Your task to perform on an android device: turn on showing notifications on the lock screen Image 0: 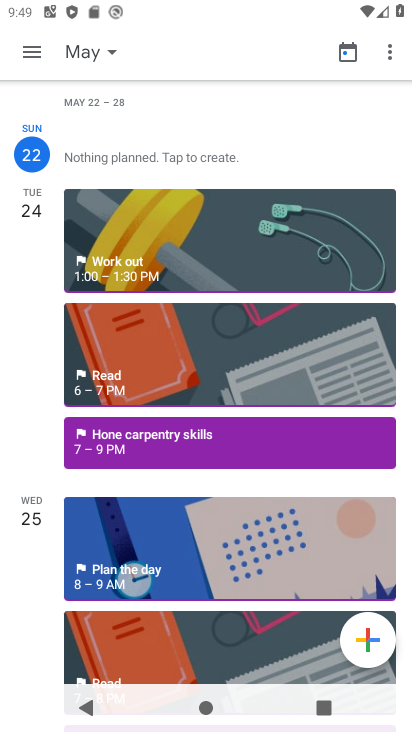
Step 0: press home button
Your task to perform on an android device: turn on showing notifications on the lock screen Image 1: 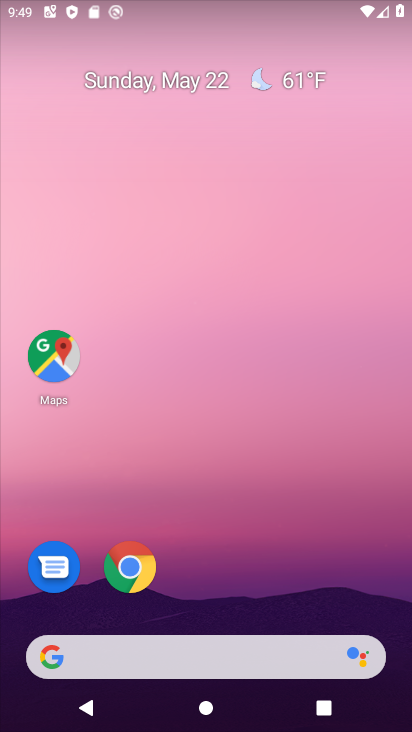
Step 1: drag from (249, 619) to (204, 27)
Your task to perform on an android device: turn on showing notifications on the lock screen Image 2: 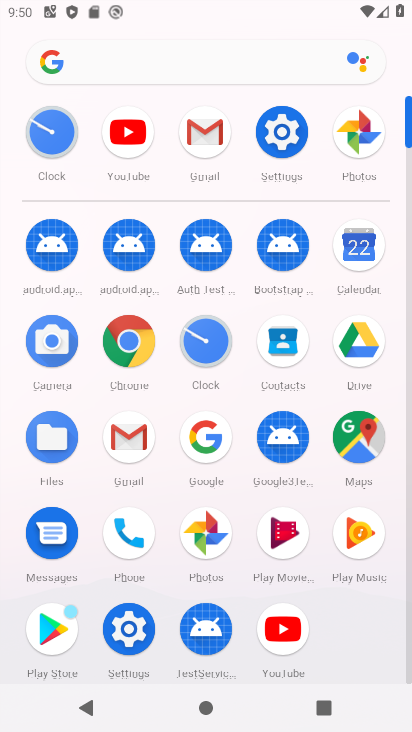
Step 2: click (137, 649)
Your task to perform on an android device: turn on showing notifications on the lock screen Image 3: 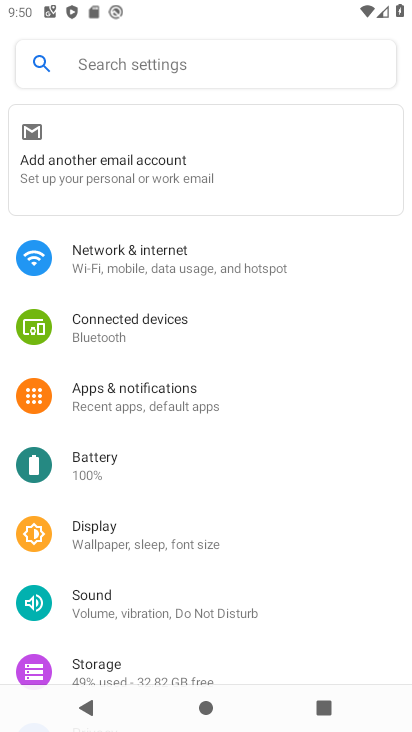
Step 3: click (123, 392)
Your task to perform on an android device: turn on showing notifications on the lock screen Image 4: 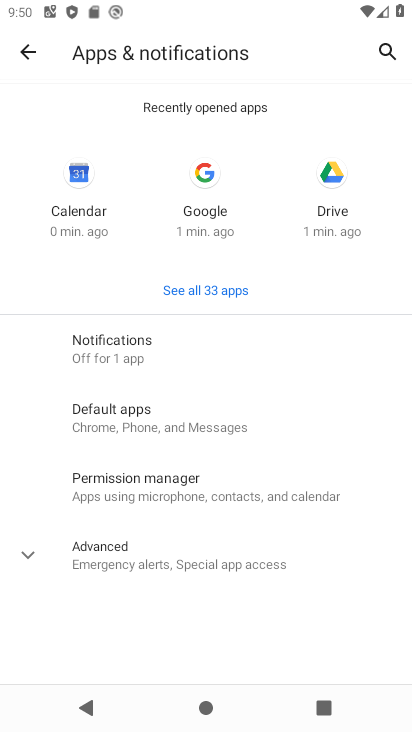
Step 4: click (122, 368)
Your task to perform on an android device: turn on showing notifications on the lock screen Image 5: 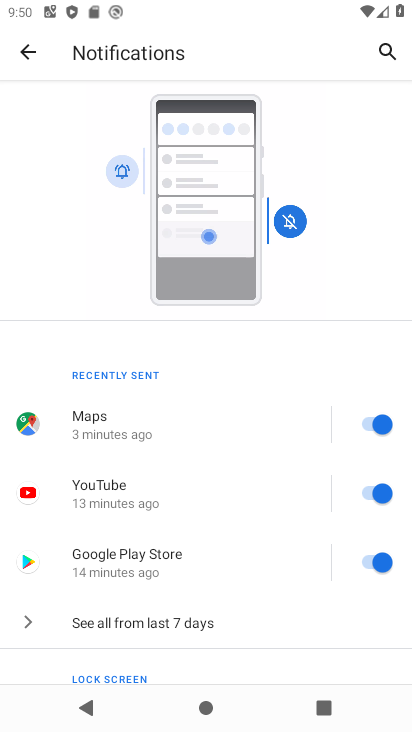
Step 5: drag from (221, 622) to (116, 102)
Your task to perform on an android device: turn on showing notifications on the lock screen Image 6: 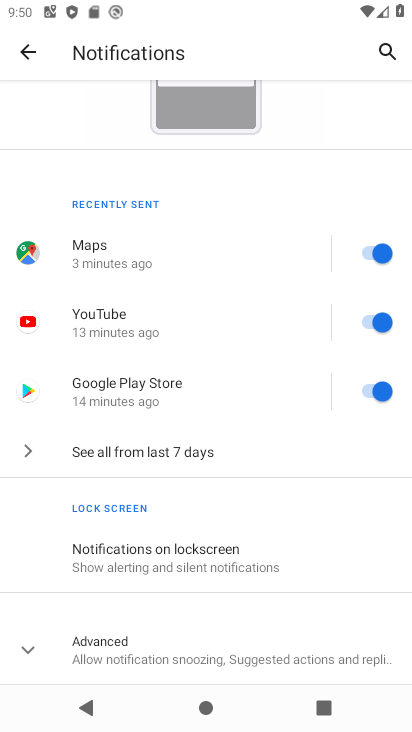
Step 6: click (184, 562)
Your task to perform on an android device: turn on showing notifications on the lock screen Image 7: 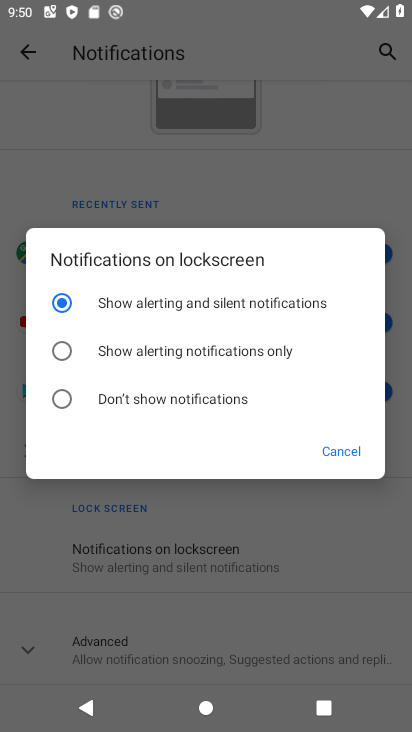
Step 7: task complete